Your task to perform on an android device: allow cookies in the chrome app Image 0: 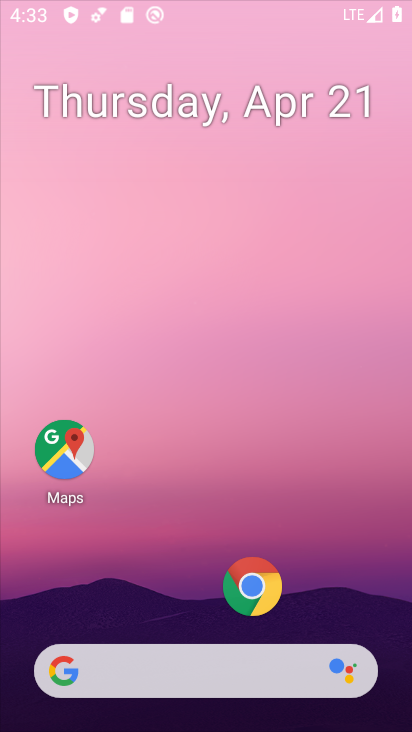
Step 0: click (286, 121)
Your task to perform on an android device: allow cookies in the chrome app Image 1: 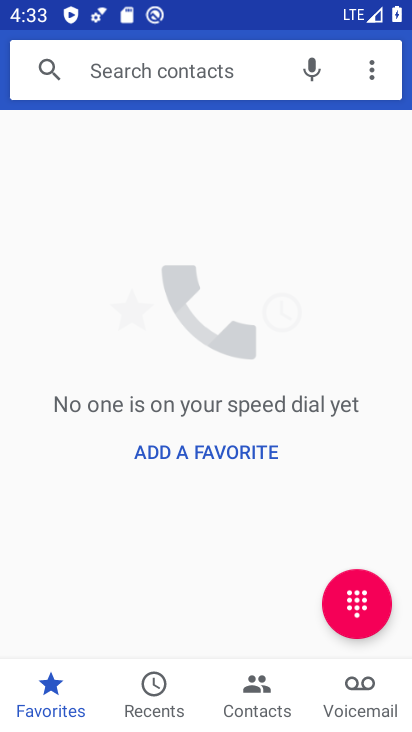
Step 1: press back button
Your task to perform on an android device: allow cookies in the chrome app Image 2: 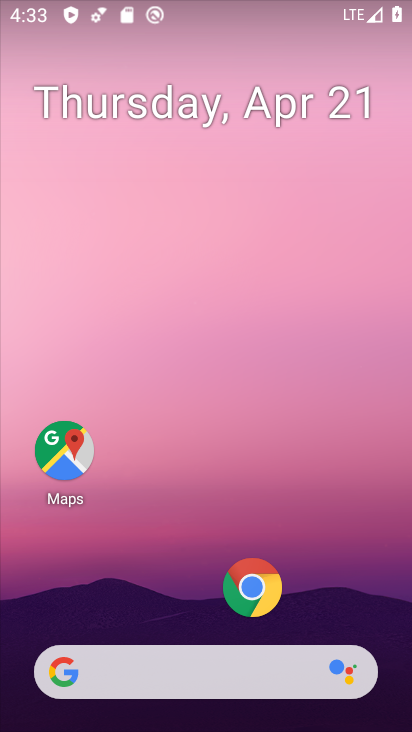
Step 2: drag from (167, 535) to (279, 117)
Your task to perform on an android device: allow cookies in the chrome app Image 3: 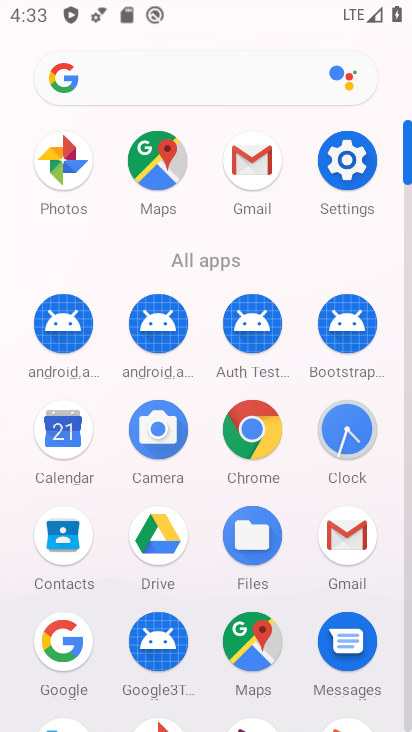
Step 3: click (259, 436)
Your task to perform on an android device: allow cookies in the chrome app Image 4: 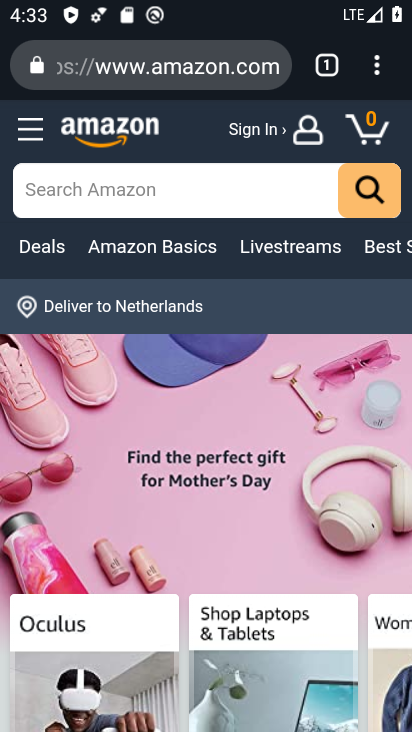
Step 4: drag from (379, 74) to (253, 639)
Your task to perform on an android device: allow cookies in the chrome app Image 5: 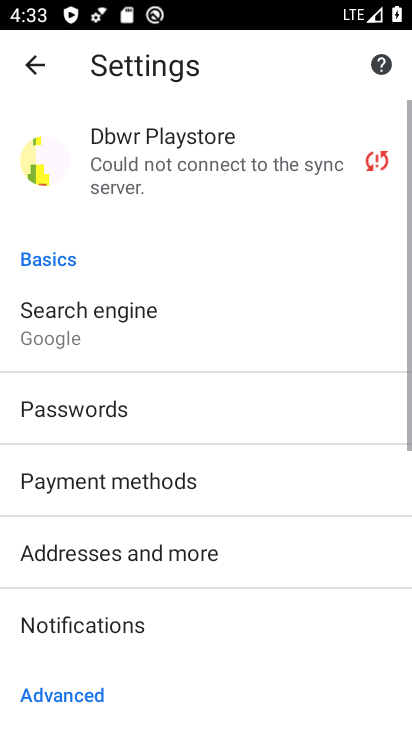
Step 5: drag from (170, 656) to (332, 233)
Your task to perform on an android device: allow cookies in the chrome app Image 6: 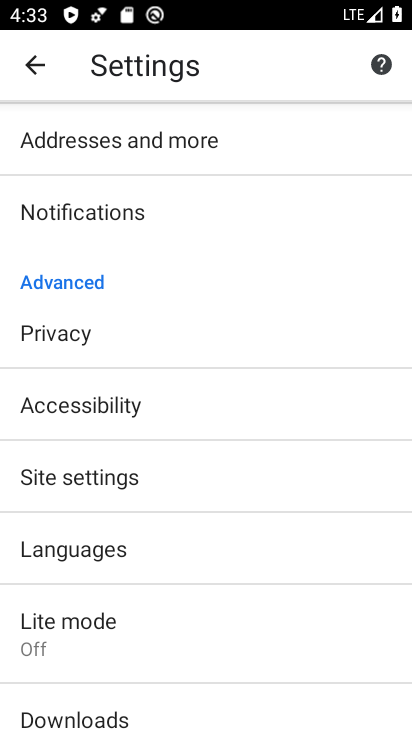
Step 6: click (142, 482)
Your task to perform on an android device: allow cookies in the chrome app Image 7: 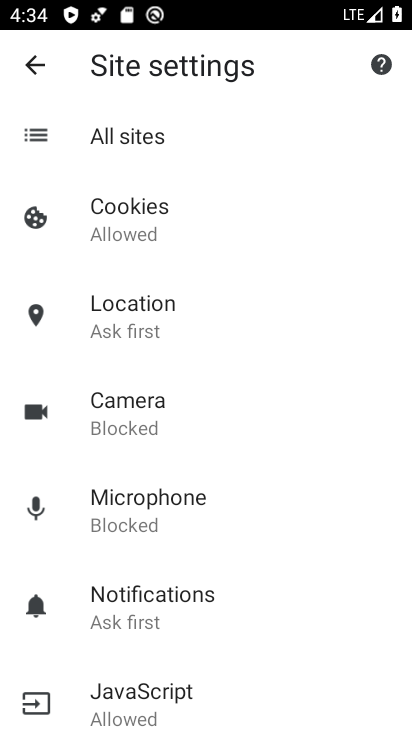
Step 7: click (233, 228)
Your task to perform on an android device: allow cookies in the chrome app Image 8: 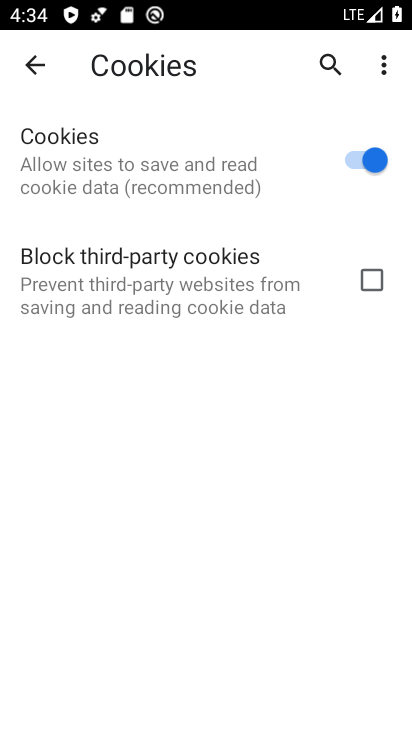
Step 8: task complete